Your task to perform on an android device: Search for Italian restaurants on Maps Image 0: 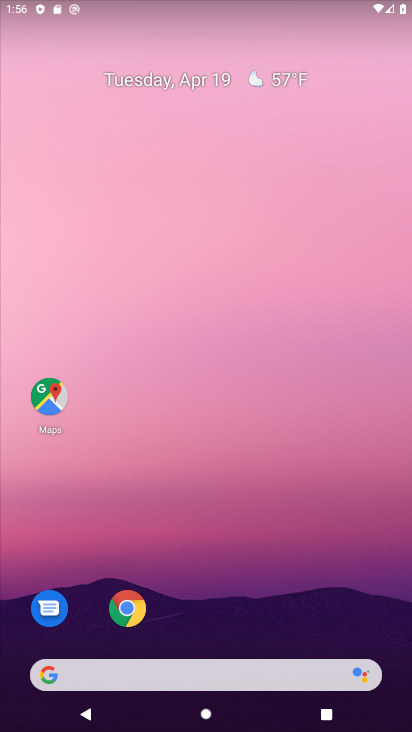
Step 0: click (47, 399)
Your task to perform on an android device: Search for Italian restaurants on Maps Image 1: 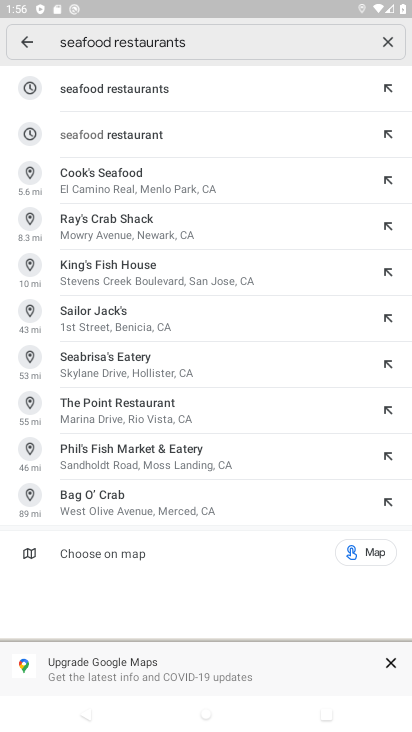
Step 1: click (390, 37)
Your task to perform on an android device: Search for Italian restaurants on Maps Image 2: 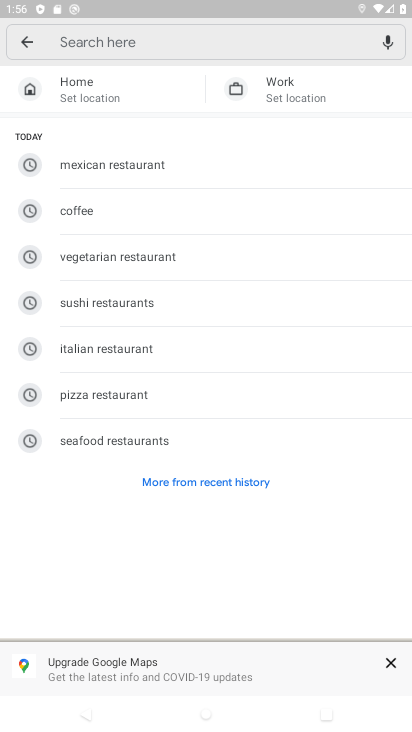
Step 2: click (182, 44)
Your task to perform on an android device: Search for Italian restaurants on Maps Image 3: 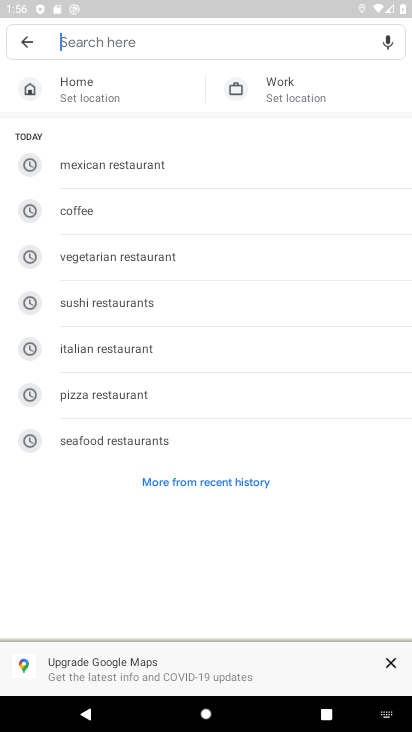
Step 3: type "italian resturants"
Your task to perform on an android device: Search for Italian restaurants on Maps Image 4: 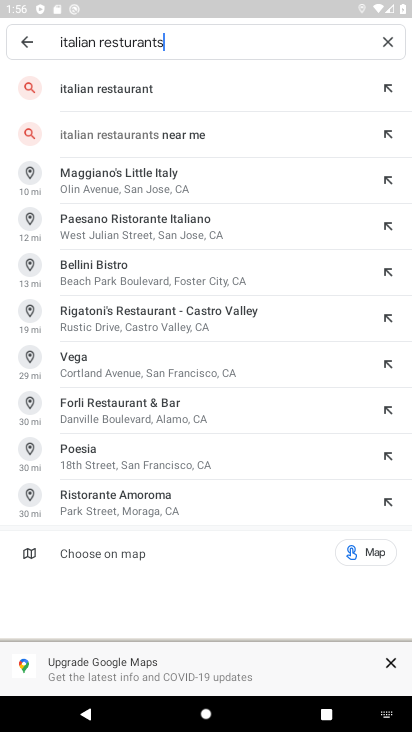
Step 4: task complete